Your task to perform on an android device: open app "Expedia: Hotels, Flights & Car" (install if not already installed), go to login, and select forgot password Image 0: 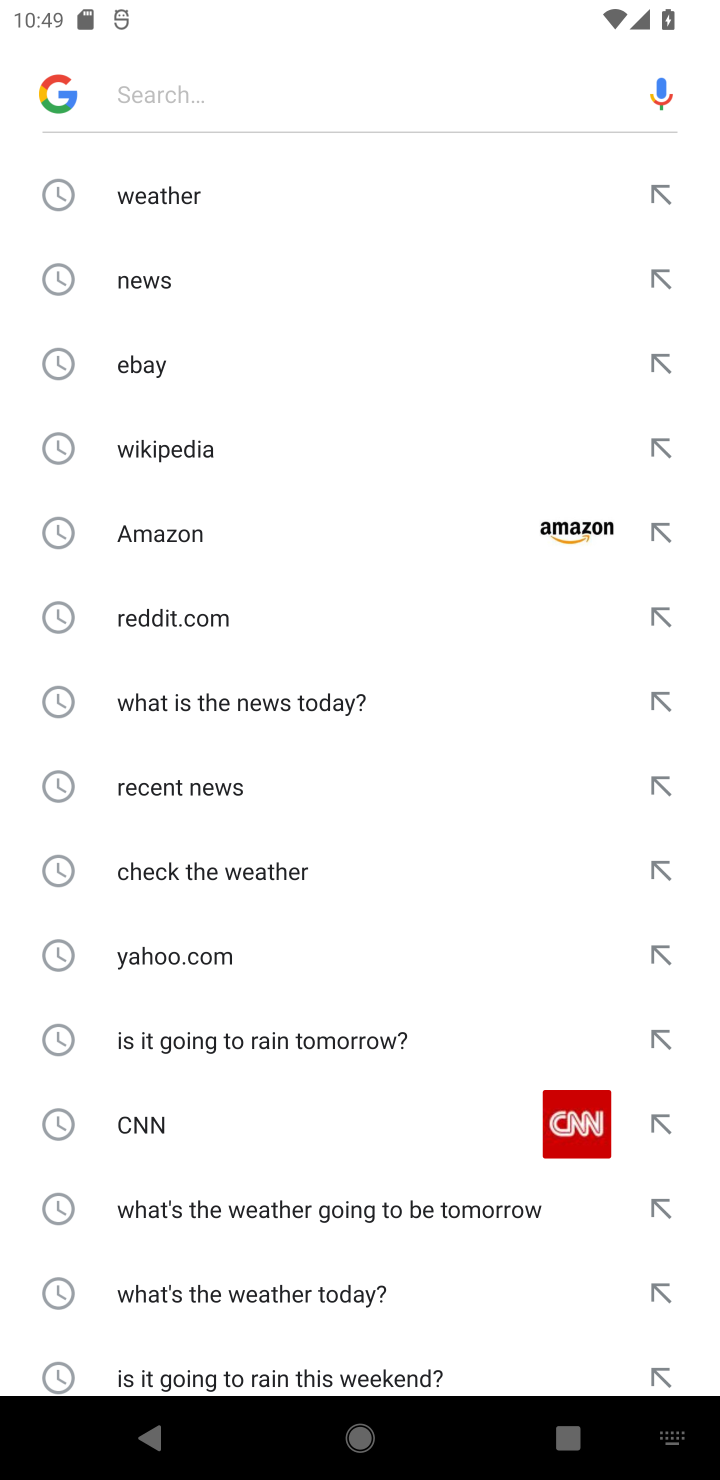
Step 0: task complete